Your task to perform on an android device: turn on translation in the chrome app Image 0: 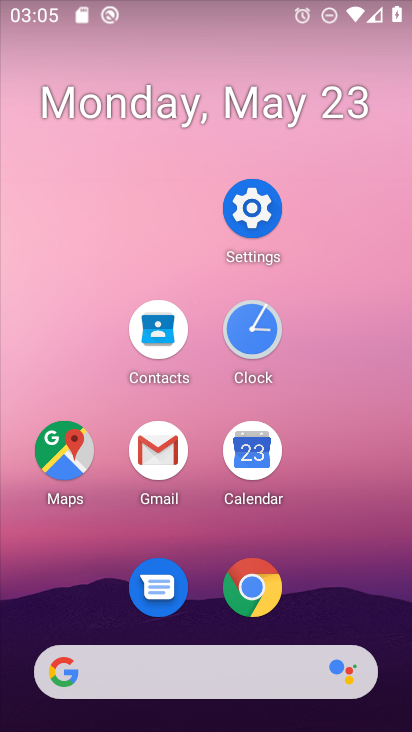
Step 0: click (258, 596)
Your task to perform on an android device: turn on translation in the chrome app Image 1: 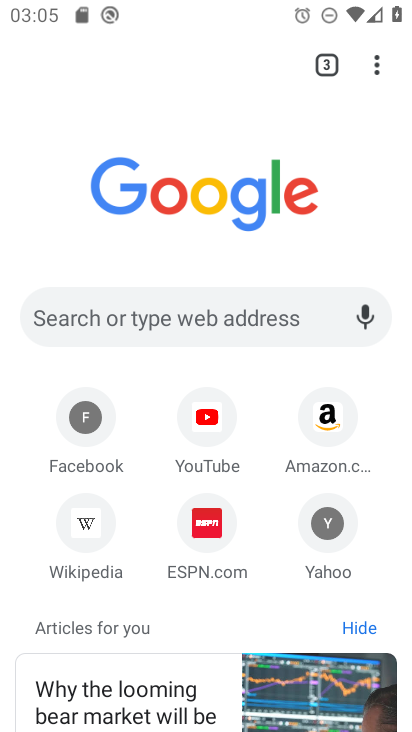
Step 1: click (379, 69)
Your task to perform on an android device: turn on translation in the chrome app Image 2: 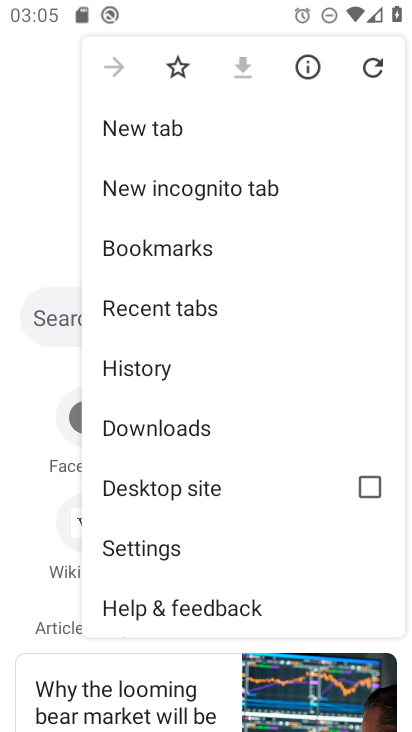
Step 2: click (180, 537)
Your task to perform on an android device: turn on translation in the chrome app Image 3: 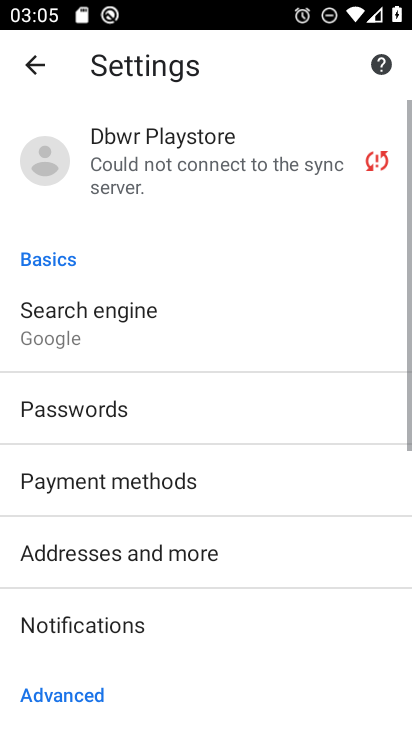
Step 3: drag from (199, 584) to (251, 265)
Your task to perform on an android device: turn on translation in the chrome app Image 4: 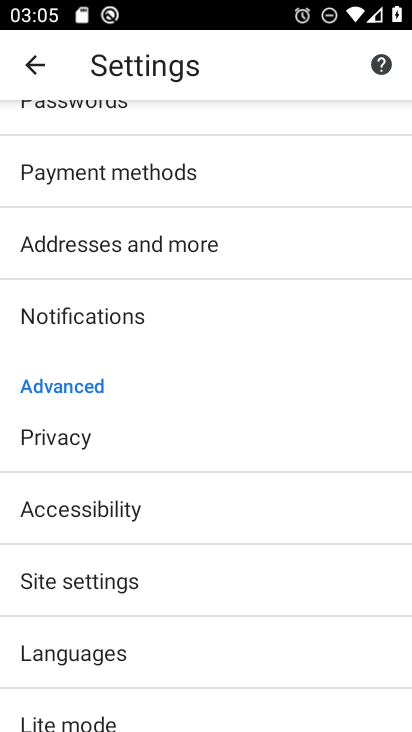
Step 4: drag from (212, 540) to (242, 356)
Your task to perform on an android device: turn on translation in the chrome app Image 5: 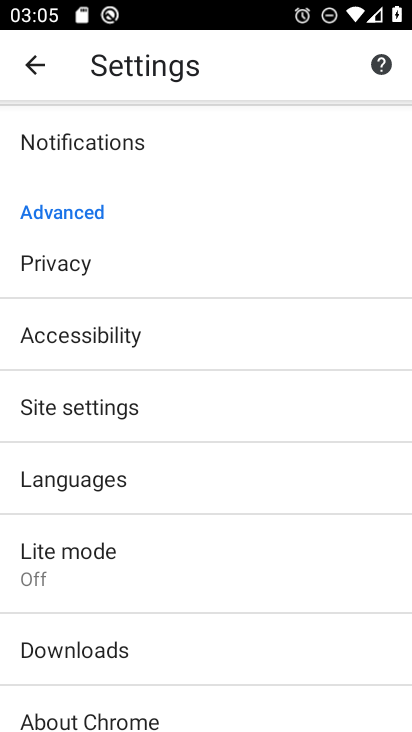
Step 5: click (212, 478)
Your task to perform on an android device: turn on translation in the chrome app Image 6: 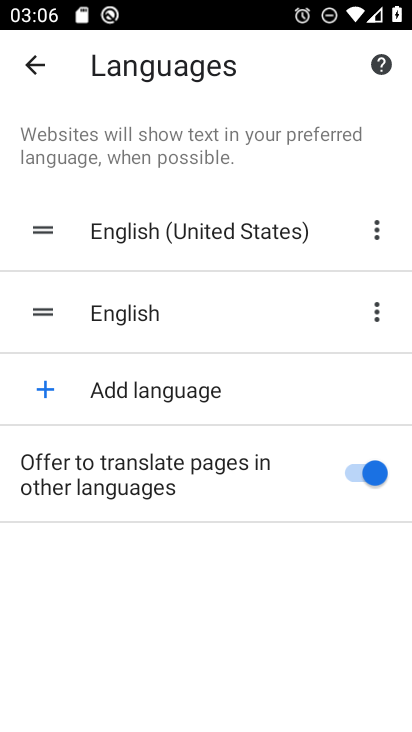
Step 6: click (291, 480)
Your task to perform on an android device: turn on translation in the chrome app Image 7: 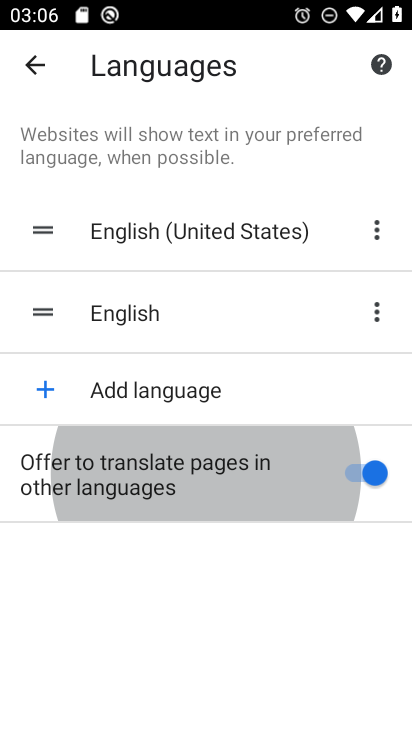
Step 7: click (291, 480)
Your task to perform on an android device: turn on translation in the chrome app Image 8: 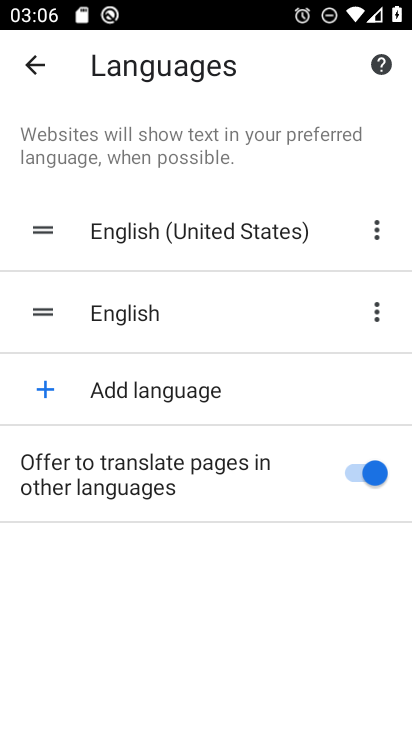
Step 8: task complete